Your task to perform on an android device: Go to Yahoo.com Image 0: 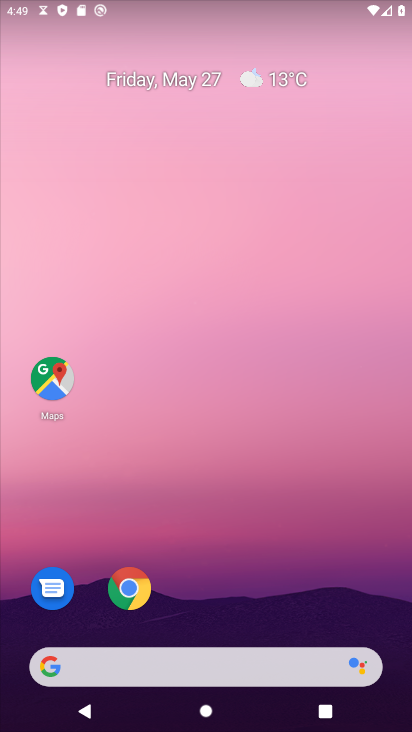
Step 0: click (136, 579)
Your task to perform on an android device: Go to Yahoo.com Image 1: 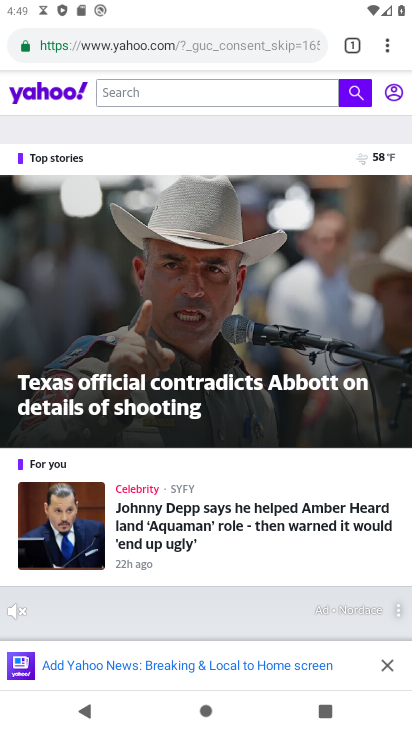
Step 1: task complete